Your task to perform on an android device: empty trash in the gmail app Image 0: 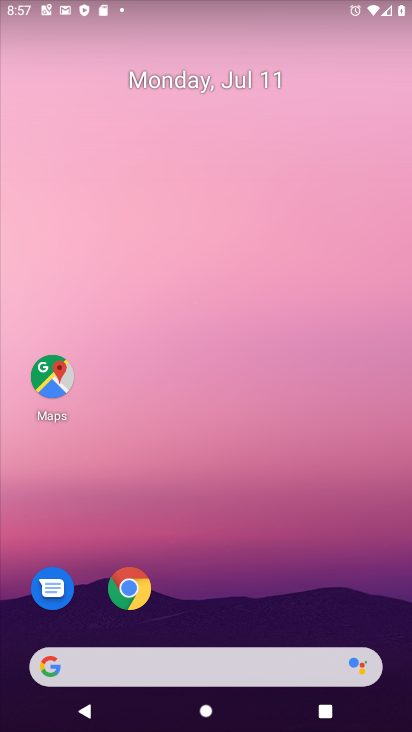
Step 0: drag from (208, 654) to (411, 6)
Your task to perform on an android device: empty trash in the gmail app Image 1: 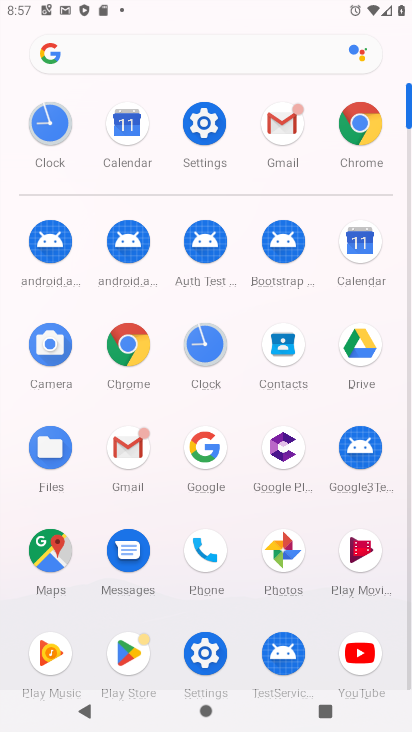
Step 1: click (285, 128)
Your task to perform on an android device: empty trash in the gmail app Image 2: 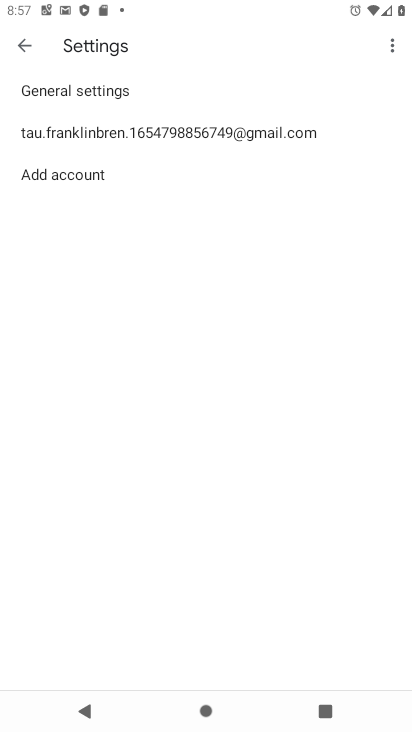
Step 2: click (23, 48)
Your task to perform on an android device: empty trash in the gmail app Image 3: 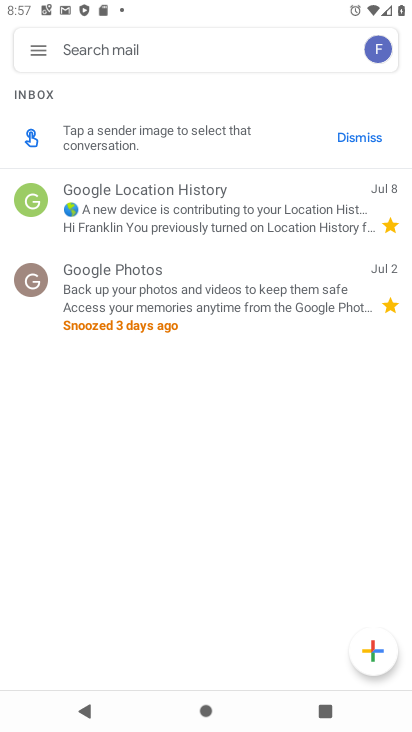
Step 3: click (32, 46)
Your task to perform on an android device: empty trash in the gmail app Image 4: 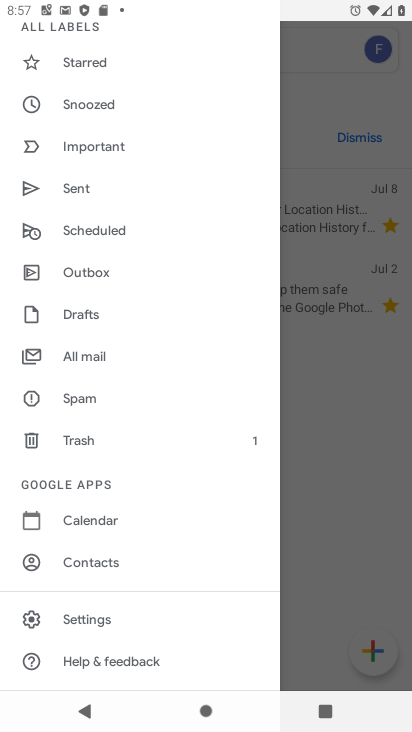
Step 4: click (105, 438)
Your task to perform on an android device: empty trash in the gmail app Image 5: 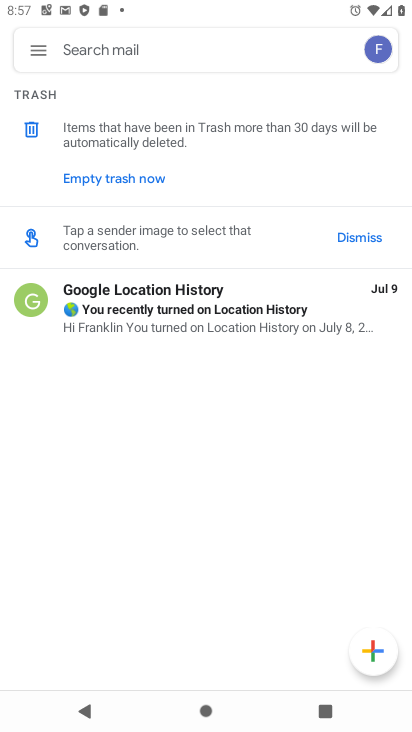
Step 5: click (135, 179)
Your task to perform on an android device: empty trash in the gmail app Image 6: 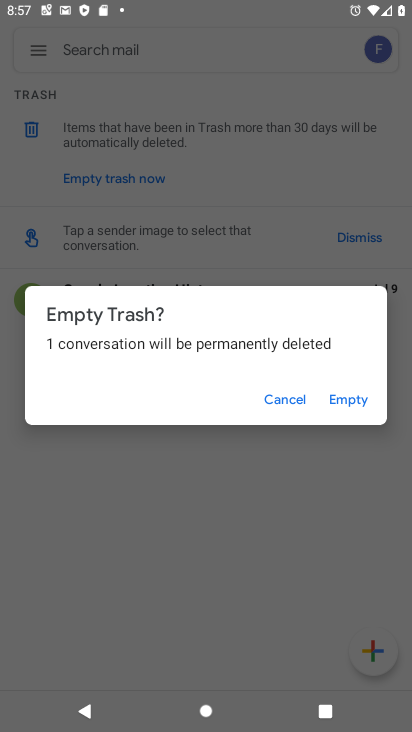
Step 6: click (341, 398)
Your task to perform on an android device: empty trash in the gmail app Image 7: 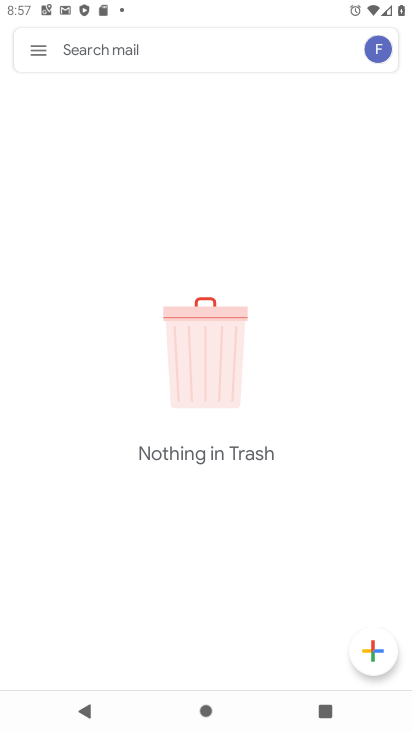
Step 7: task complete